Your task to perform on an android device: toggle translation in the chrome app Image 0: 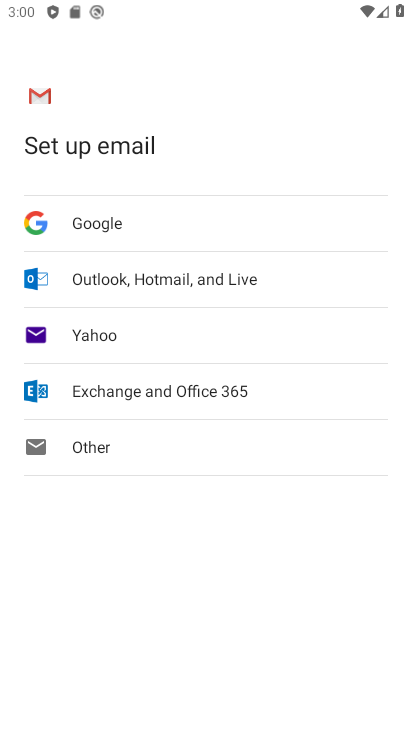
Step 0: press home button
Your task to perform on an android device: toggle translation in the chrome app Image 1: 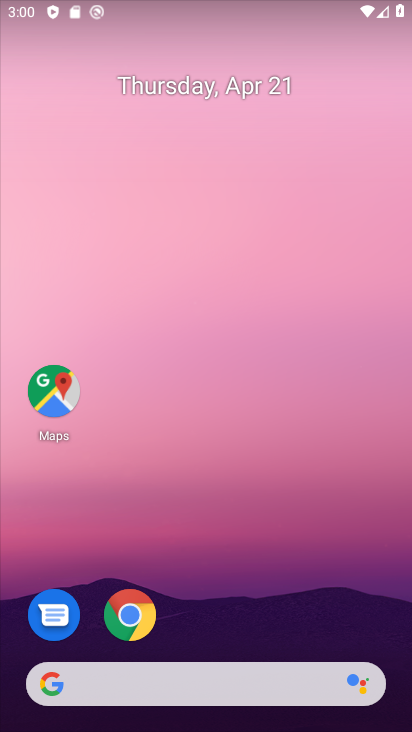
Step 1: drag from (336, 595) to (303, 137)
Your task to perform on an android device: toggle translation in the chrome app Image 2: 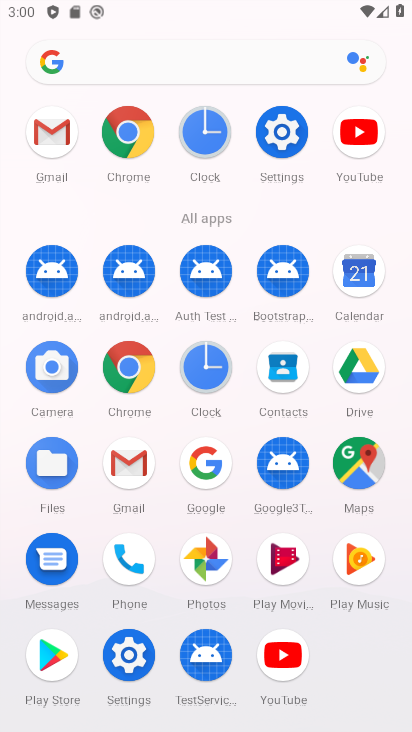
Step 2: click (131, 388)
Your task to perform on an android device: toggle translation in the chrome app Image 3: 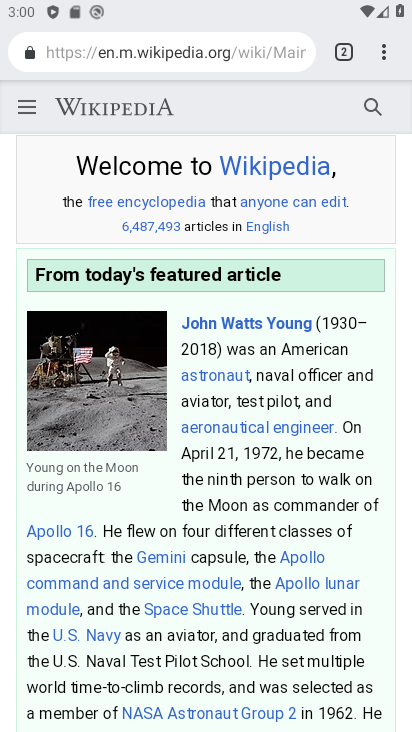
Step 3: click (384, 53)
Your task to perform on an android device: toggle translation in the chrome app Image 4: 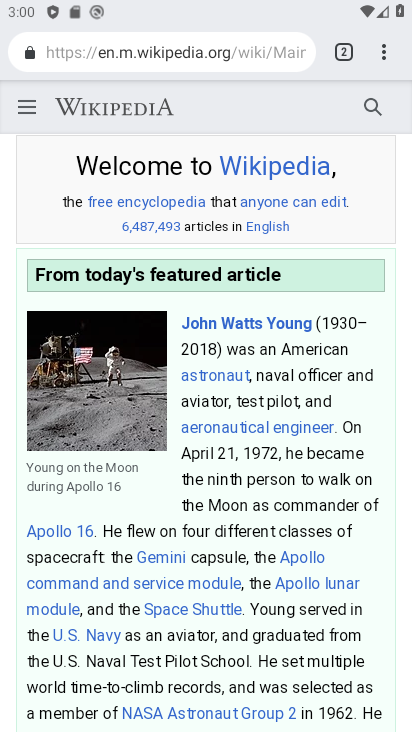
Step 4: drag from (385, 52) to (218, 651)
Your task to perform on an android device: toggle translation in the chrome app Image 5: 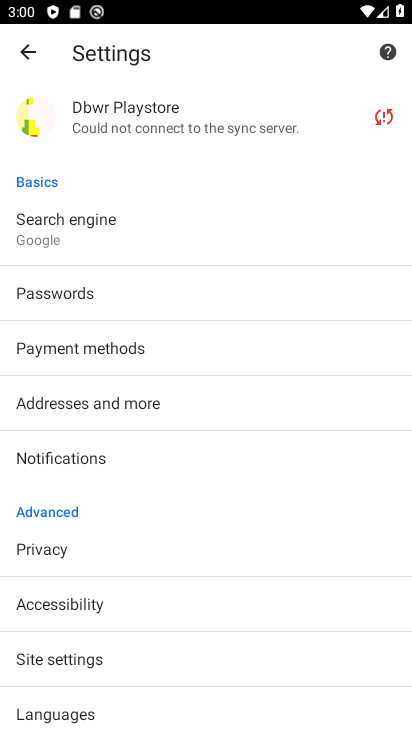
Step 5: drag from (230, 665) to (239, 326)
Your task to perform on an android device: toggle translation in the chrome app Image 6: 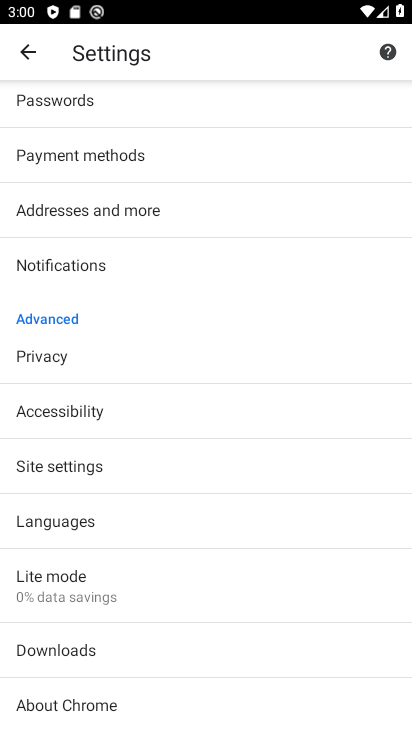
Step 6: drag from (145, 662) to (148, 458)
Your task to perform on an android device: toggle translation in the chrome app Image 7: 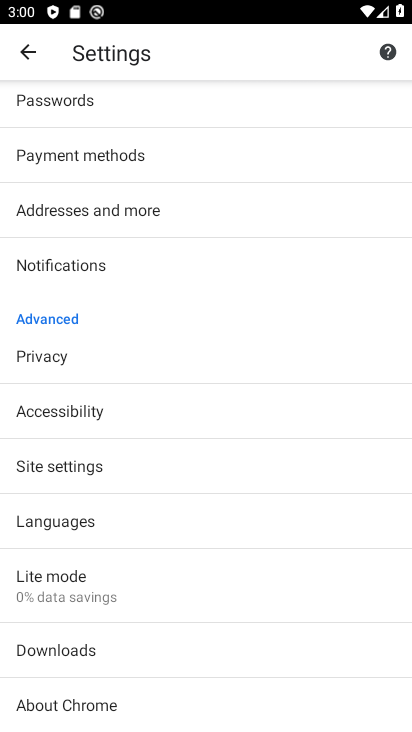
Step 7: click (88, 530)
Your task to perform on an android device: toggle translation in the chrome app Image 8: 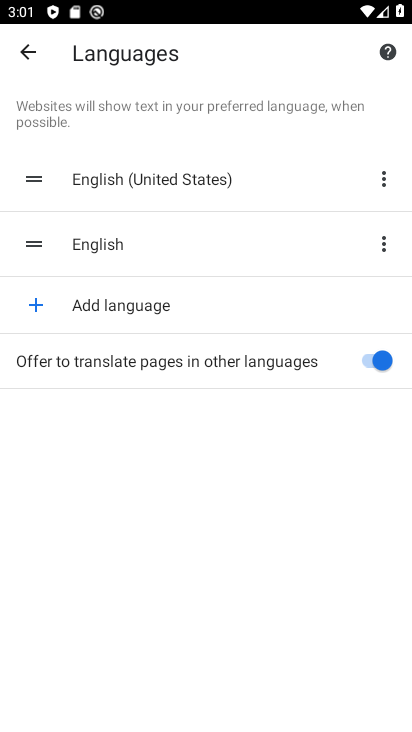
Step 8: click (372, 357)
Your task to perform on an android device: toggle translation in the chrome app Image 9: 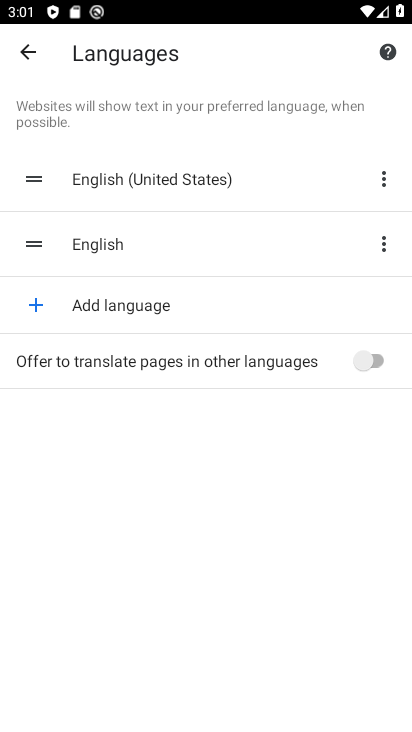
Step 9: task complete